Your task to perform on an android device: change the clock display to digital Image 0: 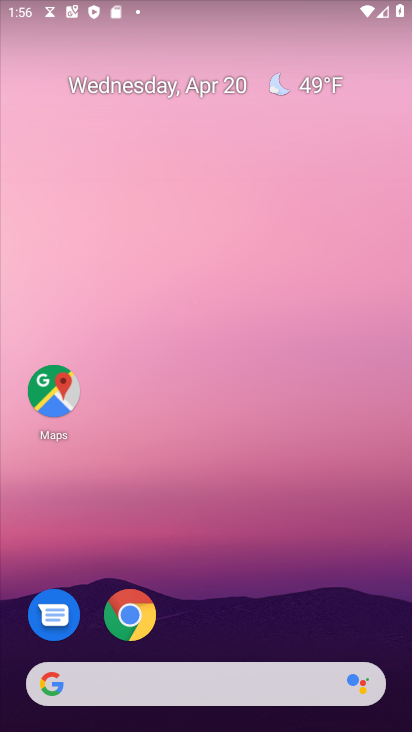
Step 0: drag from (87, 501) to (184, 268)
Your task to perform on an android device: change the clock display to digital Image 1: 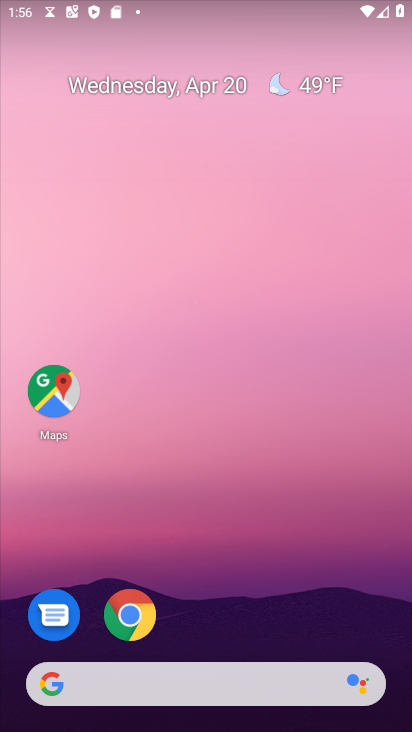
Step 1: click (292, 551)
Your task to perform on an android device: change the clock display to digital Image 2: 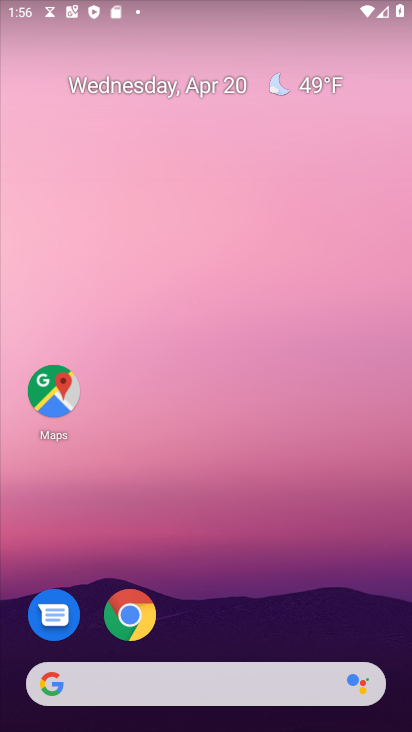
Step 2: drag from (131, 571) to (251, 263)
Your task to perform on an android device: change the clock display to digital Image 3: 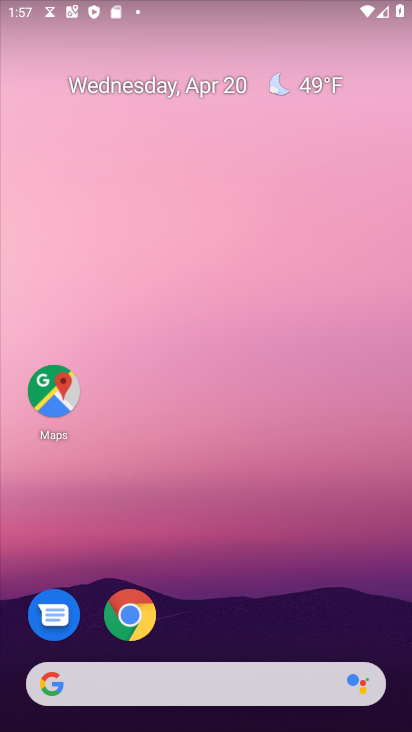
Step 3: drag from (139, 530) to (248, 233)
Your task to perform on an android device: change the clock display to digital Image 4: 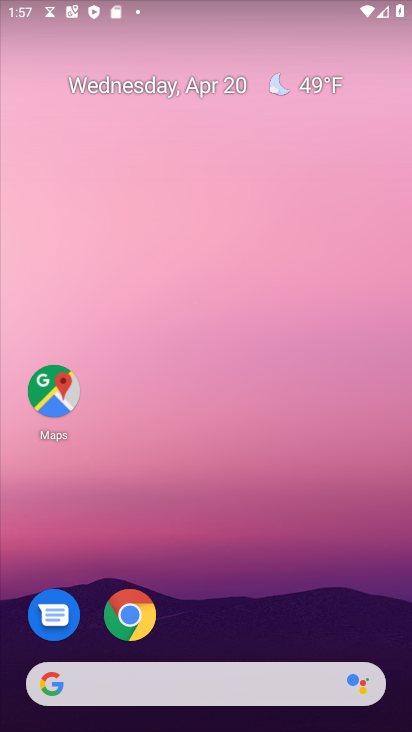
Step 4: drag from (1, 726) to (223, 216)
Your task to perform on an android device: change the clock display to digital Image 5: 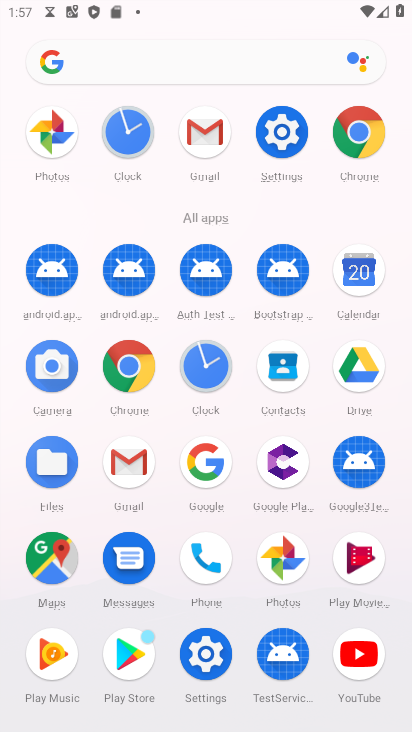
Step 5: click (202, 357)
Your task to perform on an android device: change the clock display to digital Image 6: 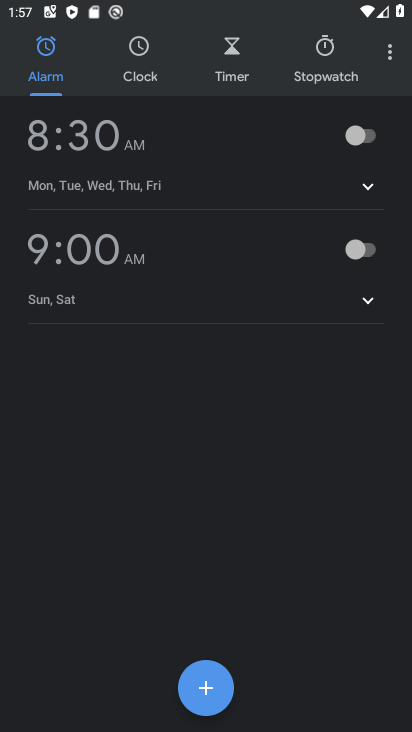
Step 6: click (383, 49)
Your task to perform on an android device: change the clock display to digital Image 7: 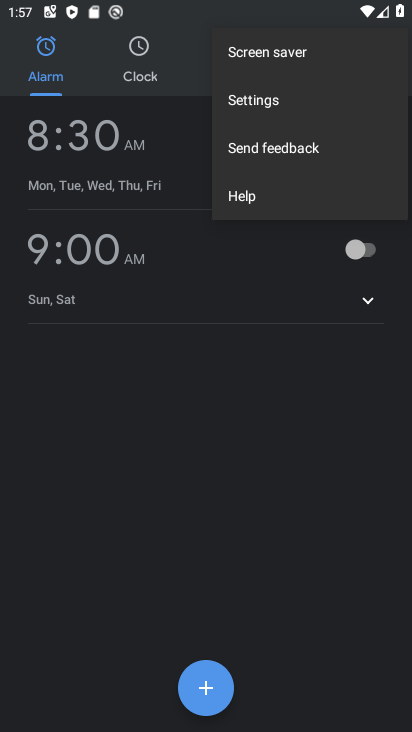
Step 7: click (293, 107)
Your task to perform on an android device: change the clock display to digital Image 8: 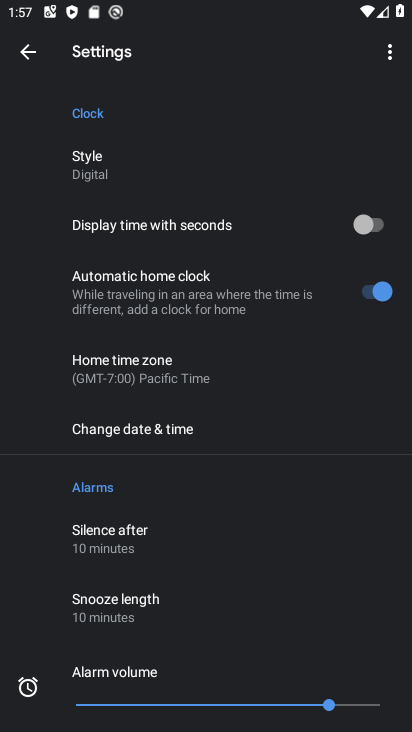
Step 8: click (114, 157)
Your task to perform on an android device: change the clock display to digital Image 9: 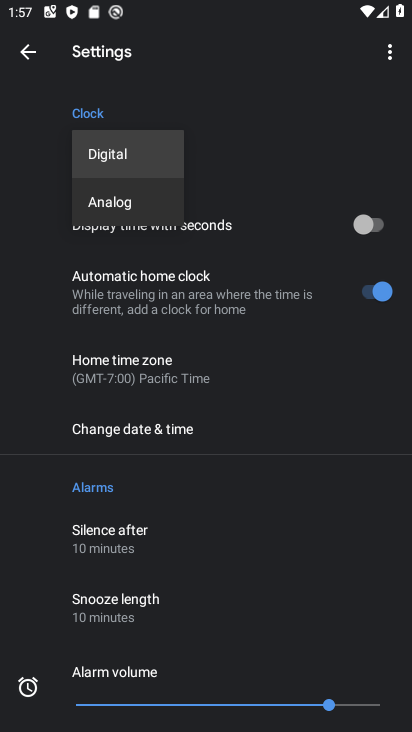
Step 9: click (149, 157)
Your task to perform on an android device: change the clock display to digital Image 10: 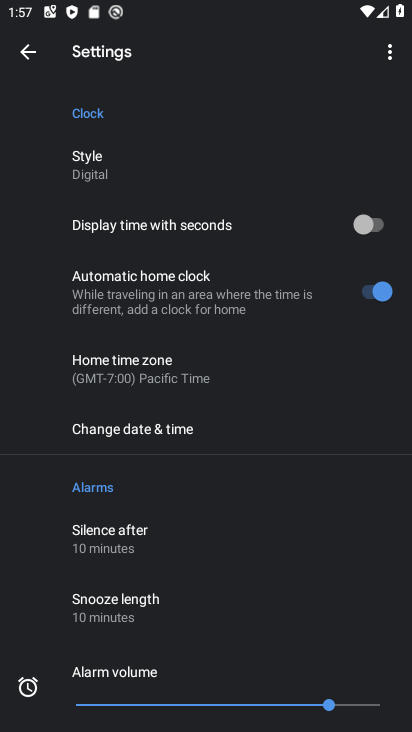
Step 10: task complete